Your task to perform on an android device: toggle translation in the chrome app Image 0: 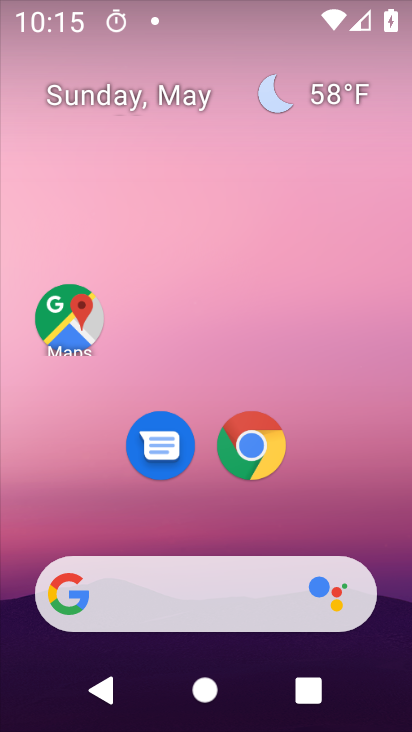
Step 0: drag from (360, 507) to (254, 11)
Your task to perform on an android device: toggle translation in the chrome app Image 1: 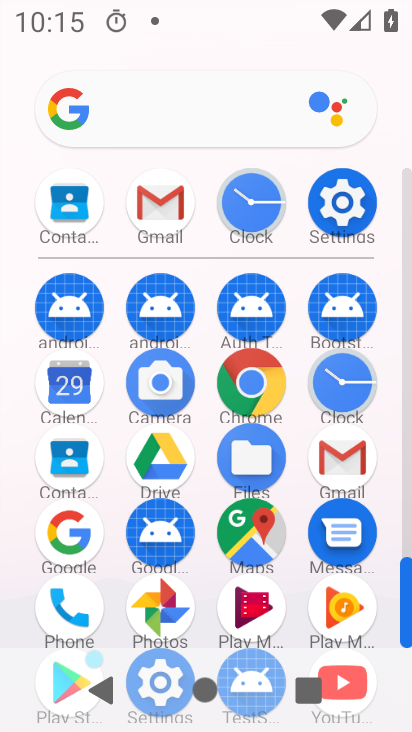
Step 1: drag from (18, 629) to (16, 250)
Your task to perform on an android device: toggle translation in the chrome app Image 2: 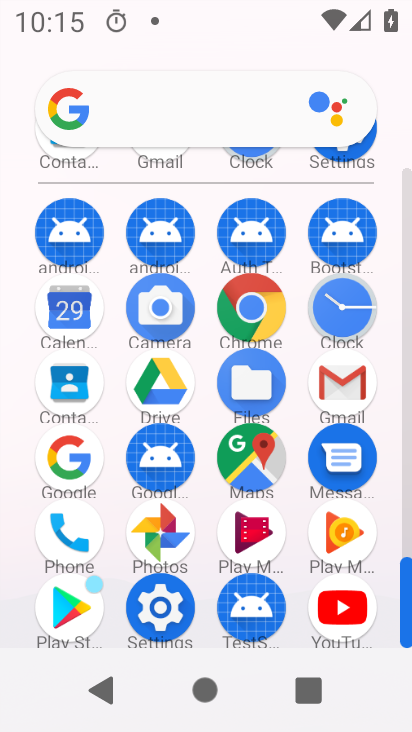
Step 2: click (250, 298)
Your task to perform on an android device: toggle translation in the chrome app Image 3: 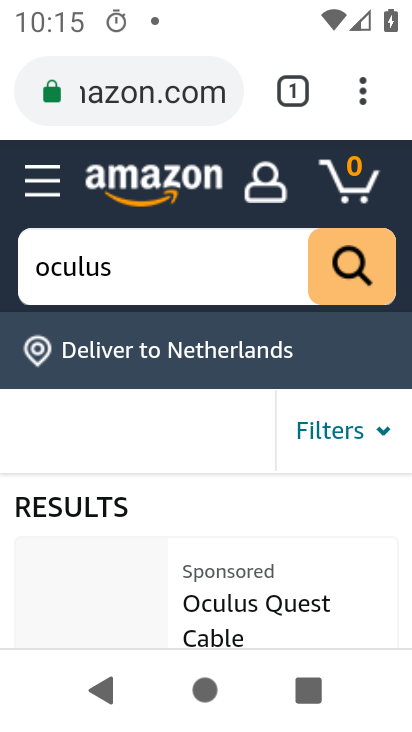
Step 3: drag from (363, 102) to (151, 468)
Your task to perform on an android device: toggle translation in the chrome app Image 4: 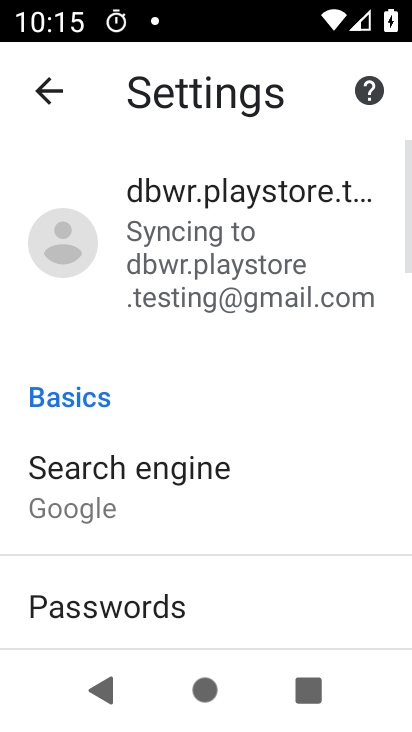
Step 4: drag from (222, 585) to (235, 150)
Your task to perform on an android device: toggle translation in the chrome app Image 5: 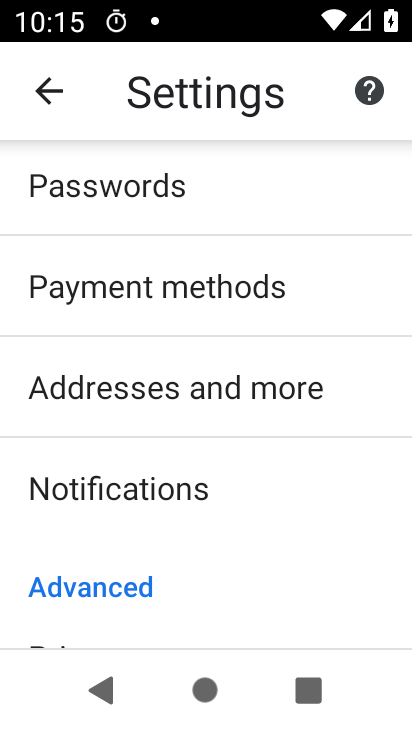
Step 5: drag from (252, 559) to (258, 160)
Your task to perform on an android device: toggle translation in the chrome app Image 6: 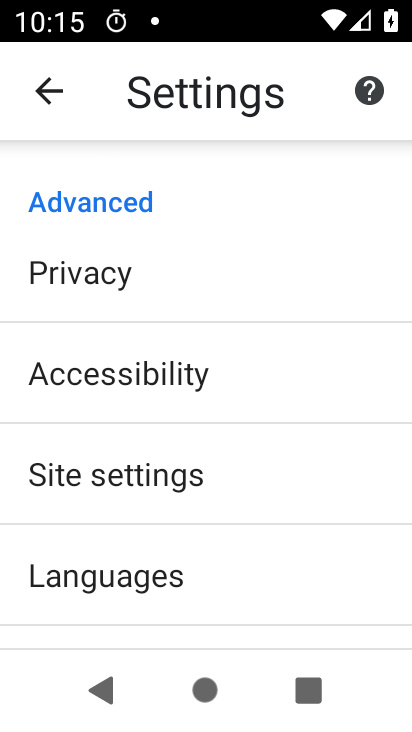
Step 6: drag from (269, 544) to (268, 218)
Your task to perform on an android device: toggle translation in the chrome app Image 7: 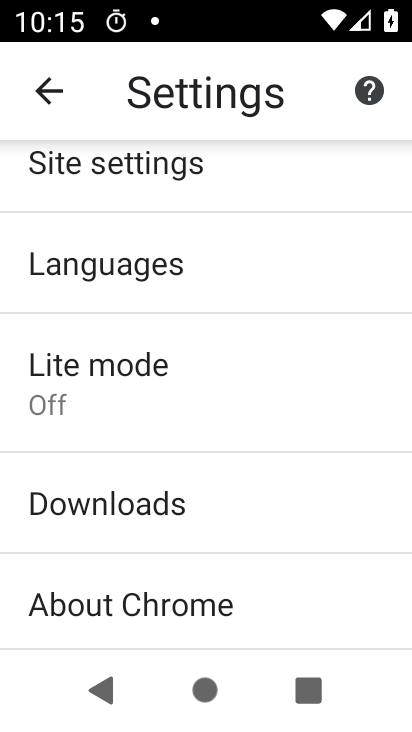
Step 7: click (153, 256)
Your task to perform on an android device: toggle translation in the chrome app Image 8: 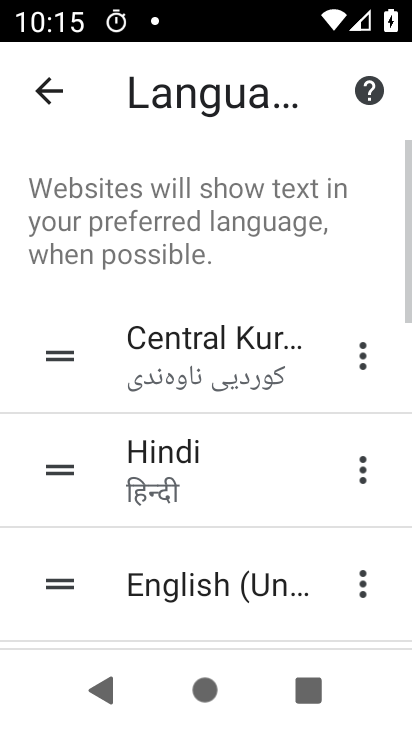
Step 8: drag from (261, 597) to (259, 202)
Your task to perform on an android device: toggle translation in the chrome app Image 9: 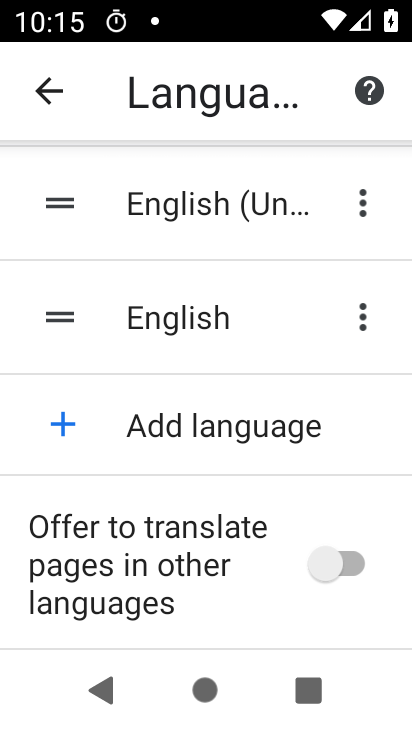
Step 9: click (327, 569)
Your task to perform on an android device: toggle translation in the chrome app Image 10: 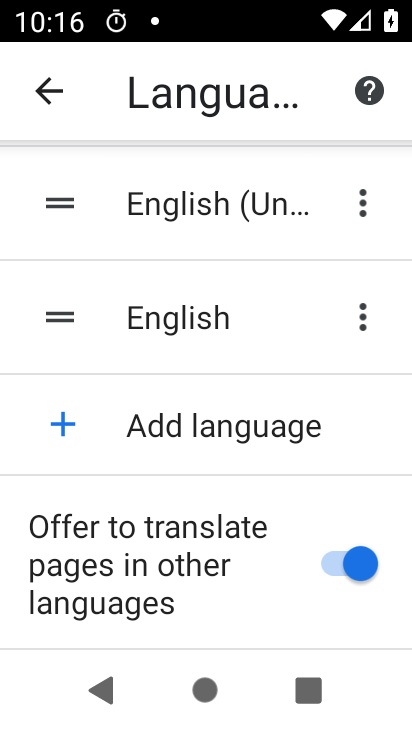
Step 10: task complete